Your task to perform on an android device: Go to Yahoo.com Image 0: 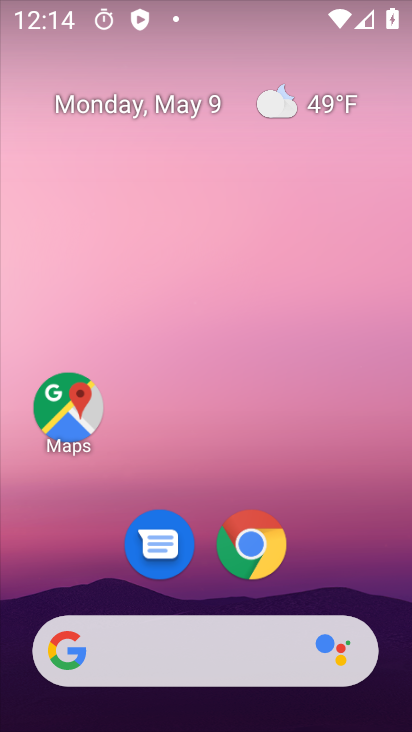
Step 0: drag from (323, 627) to (327, 15)
Your task to perform on an android device: Go to Yahoo.com Image 1: 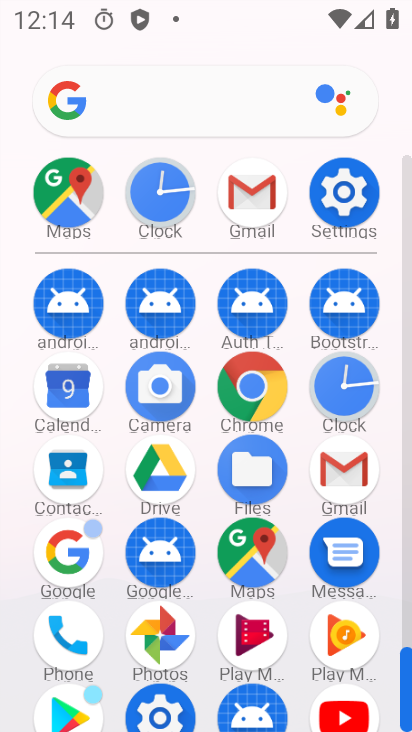
Step 1: click (251, 393)
Your task to perform on an android device: Go to Yahoo.com Image 2: 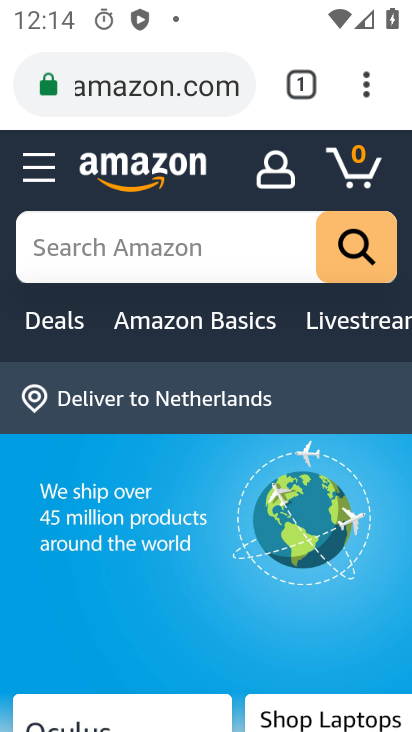
Step 2: drag from (365, 80) to (193, 198)
Your task to perform on an android device: Go to Yahoo.com Image 3: 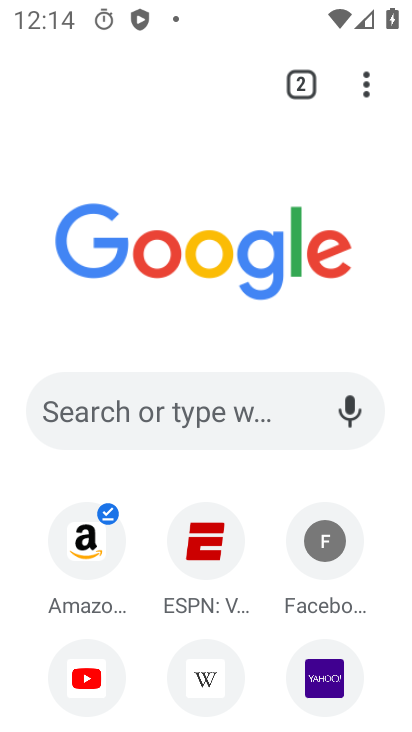
Step 3: click (319, 689)
Your task to perform on an android device: Go to Yahoo.com Image 4: 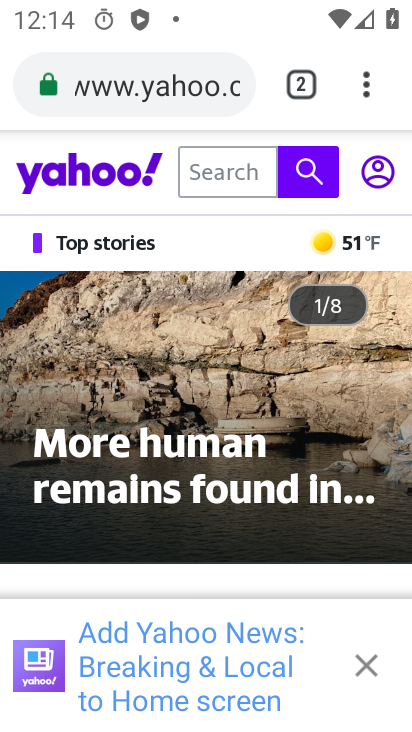
Step 4: task complete